Your task to perform on an android device: Open settings Image 0: 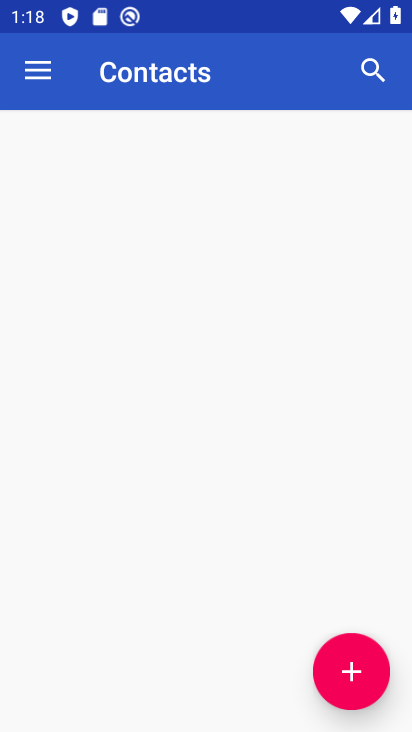
Step 0: drag from (310, 613) to (398, 484)
Your task to perform on an android device: Open settings Image 1: 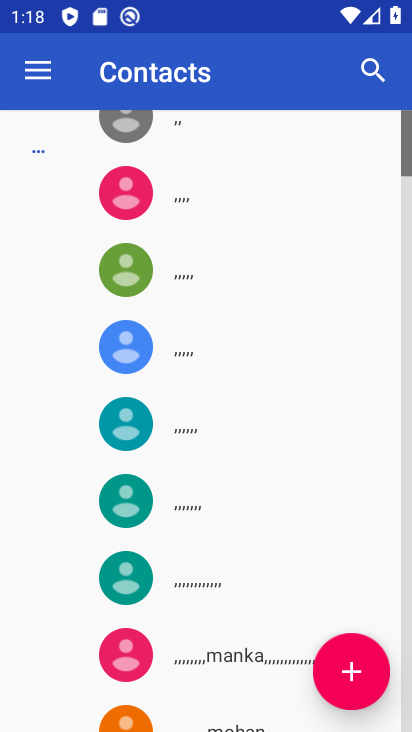
Step 1: press home button
Your task to perform on an android device: Open settings Image 2: 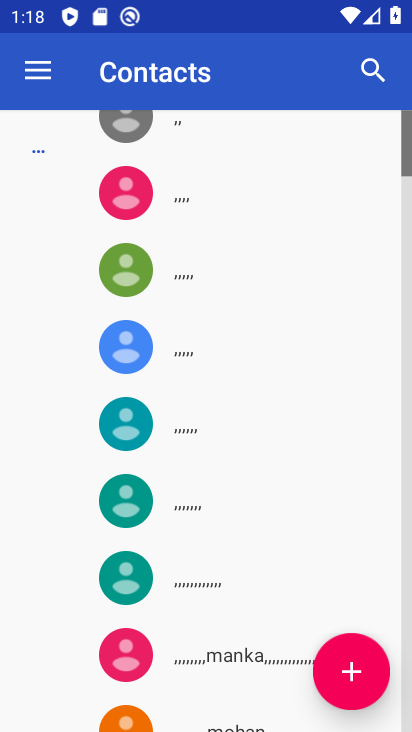
Step 2: drag from (398, 484) to (399, 581)
Your task to perform on an android device: Open settings Image 3: 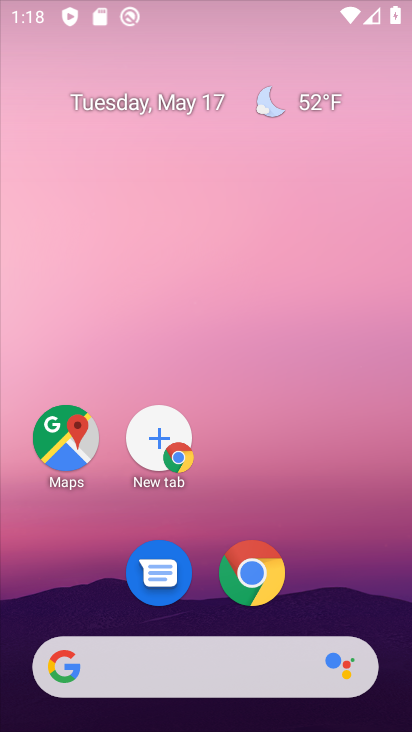
Step 3: drag from (350, 613) to (340, 165)
Your task to perform on an android device: Open settings Image 4: 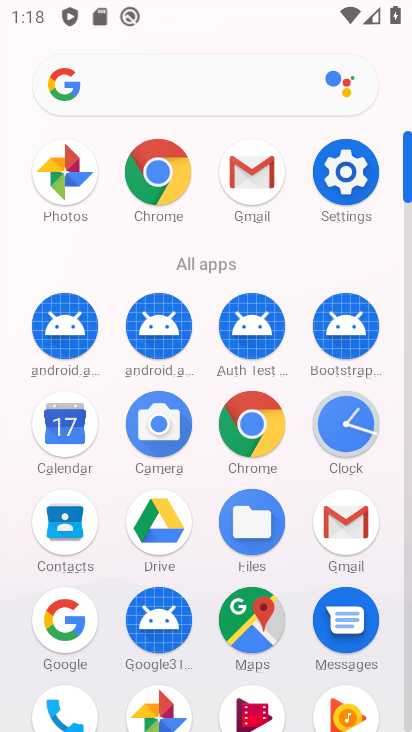
Step 4: click (341, 180)
Your task to perform on an android device: Open settings Image 5: 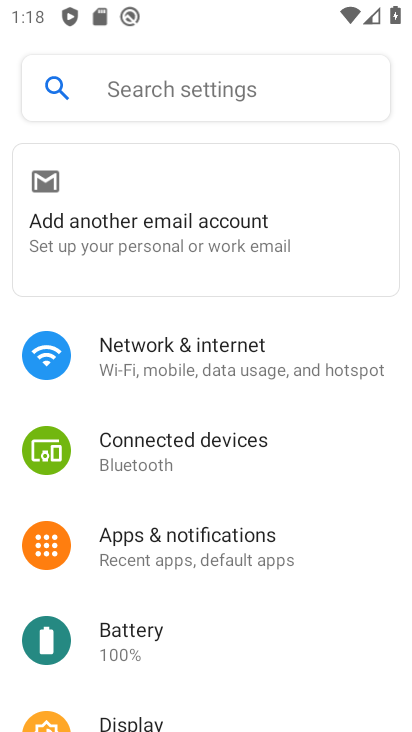
Step 5: task complete